Your task to perform on an android device: Go to wifi settings Image 0: 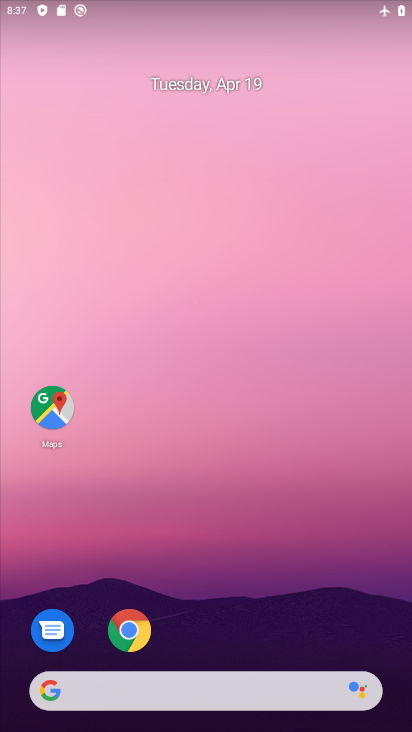
Step 0: drag from (259, 627) to (329, 55)
Your task to perform on an android device: Go to wifi settings Image 1: 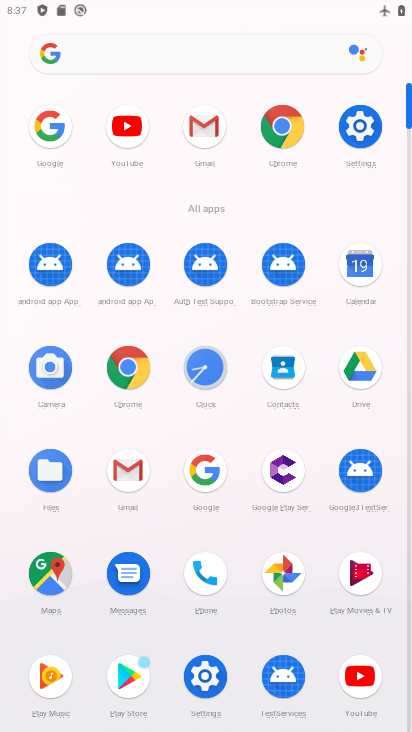
Step 1: click (374, 146)
Your task to perform on an android device: Go to wifi settings Image 2: 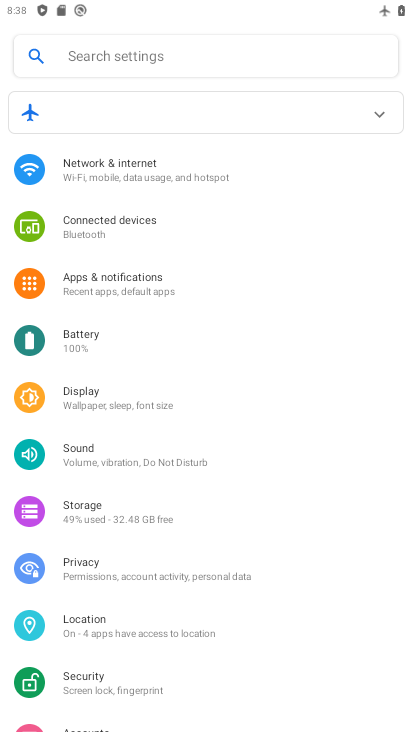
Step 2: click (155, 182)
Your task to perform on an android device: Go to wifi settings Image 3: 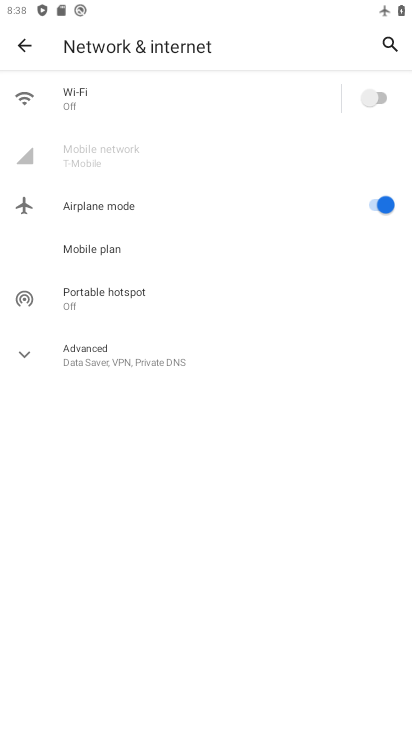
Step 3: click (155, 112)
Your task to perform on an android device: Go to wifi settings Image 4: 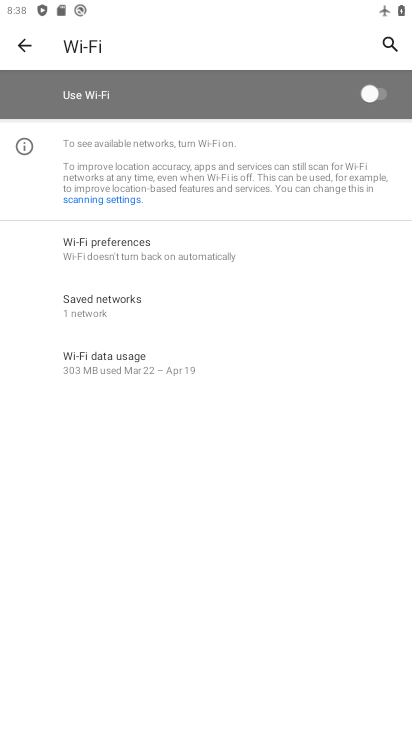
Step 4: task complete